Your task to perform on an android device: toggle location history Image 0: 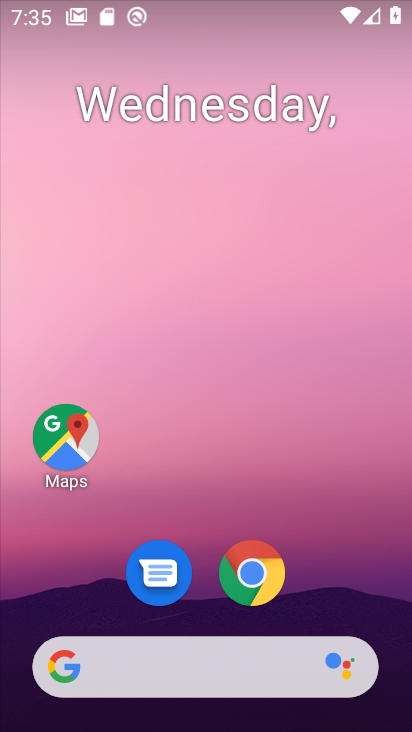
Step 0: click (314, 597)
Your task to perform on an android device: toggle location history Image 1: 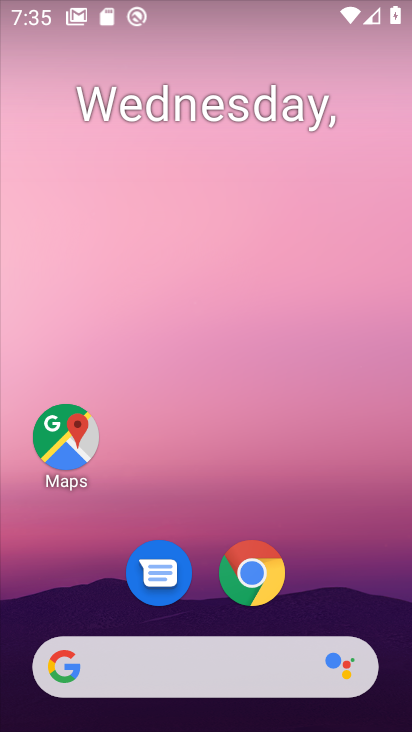
Step 1: click (67, 444)
Your task to perform on an android device: toggle location history Image 2: 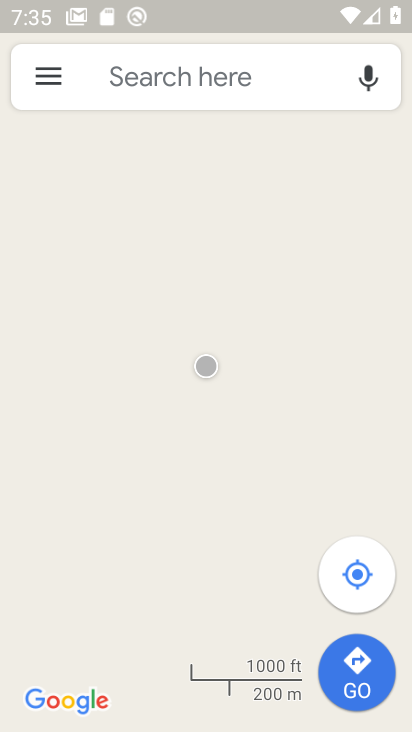
Step 2: click (39, 82)
Your task to perform on an android device: toggle location history Image 3: 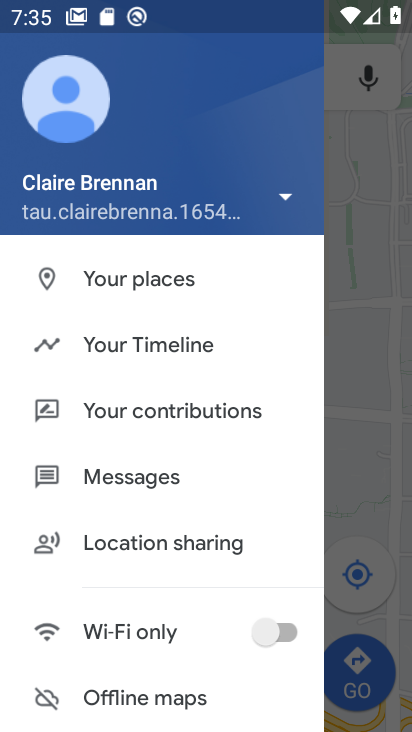
Step 3: click (104, 349)
Your task to perform on an android device: toggle location history Image 4: 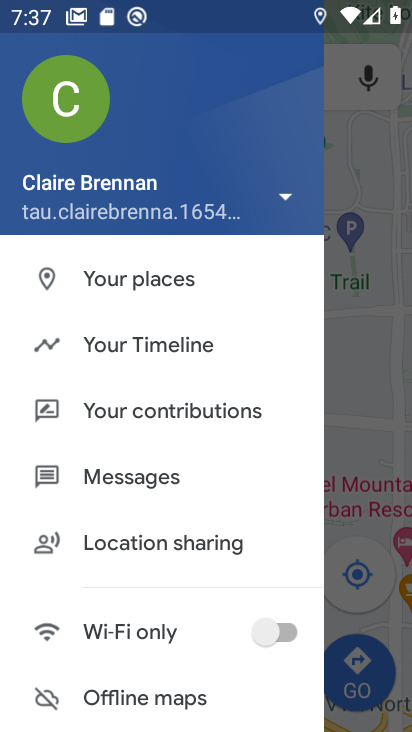
Step 4: click (129, 357)
Your task to perform on an android device: toggle location history Image 5: 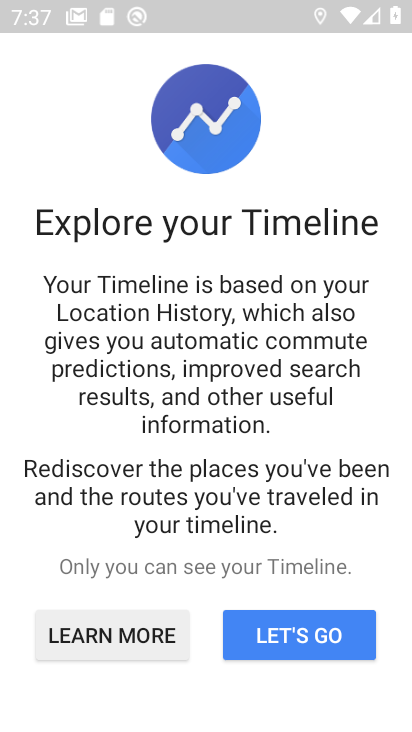
Step 5: click (291, 646)
Your task to perform on an android device: toggle location history Image 6: 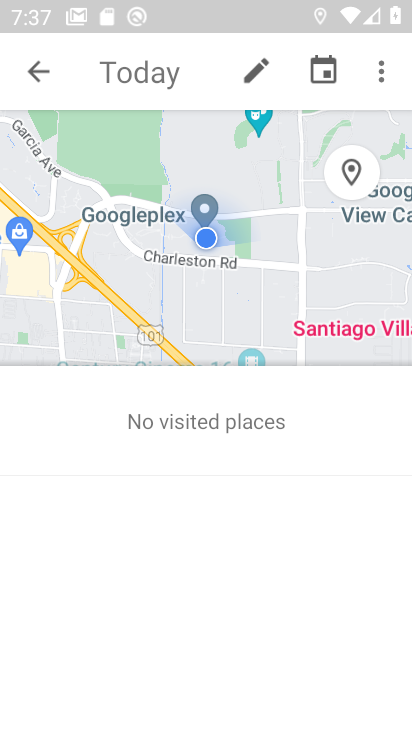
Step 6: click (380, 70)
Your task to perform on an android device: toggle location history Image 7: 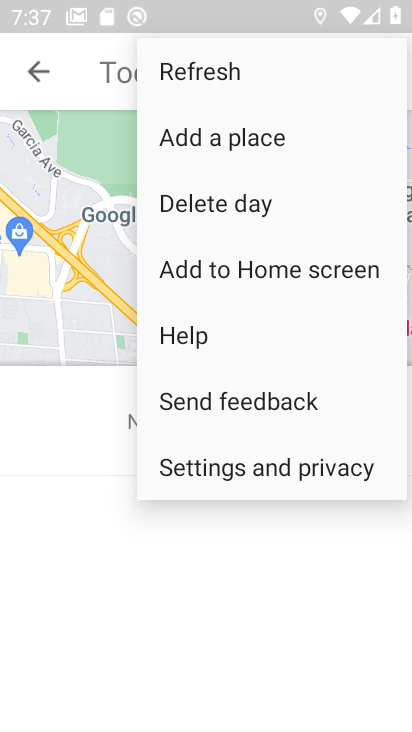
Step 7: click (233, 462)
Your task to perform on an android device: toggle location history Image 8: 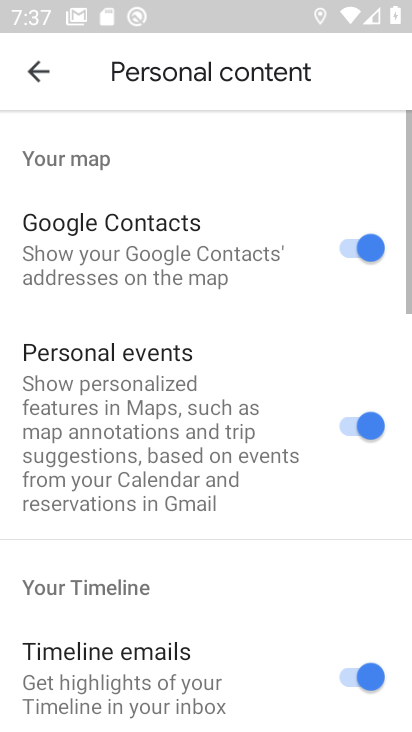
Step 8: drag from (133, 565) to (138, 107)
Your task to perform on an android device: toggle location history Image 9: 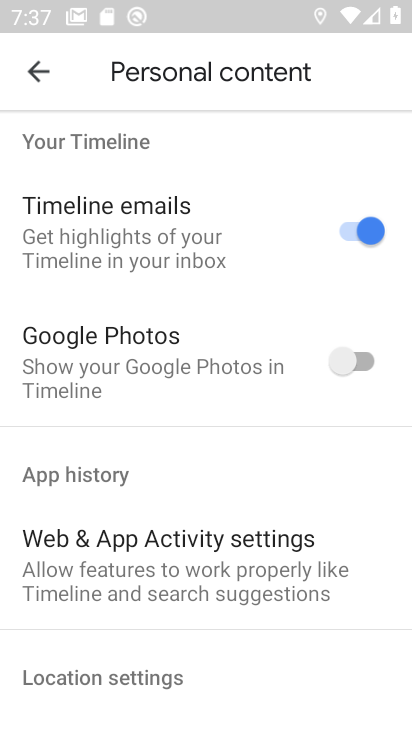
Step 9: drag from (112, 494) to (107, 118)
Your task to perform on an android device: toggle location history Image 10: 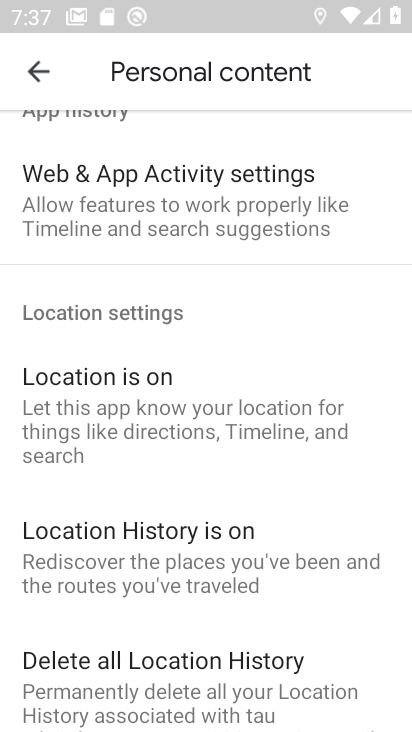
Step 10: click (134, 550)
Your task to perform on an android device: toggle location history Image 11: 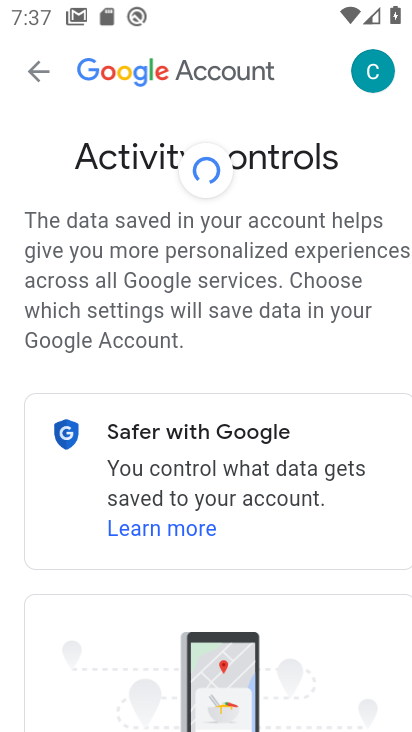
Step 11: drag from (197, 498) to (205, 155)
Your task to perform on an android device: toggle location history Image 12: 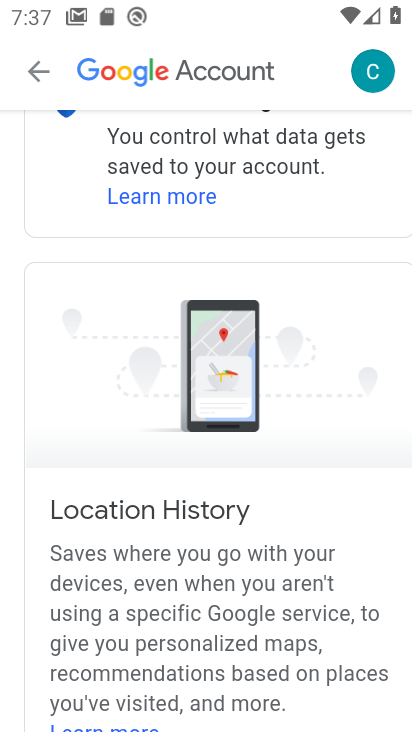
Step 12: drag from (159, 549) to (182, 174)
Your task to perform on an android device: toggle location history Image 13: 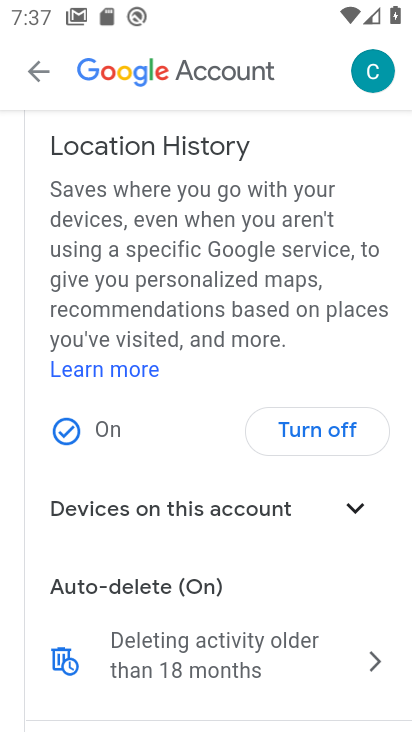
Step 13: click (308, 430)
Your task to perform on an android device: toggle location history Image 14: 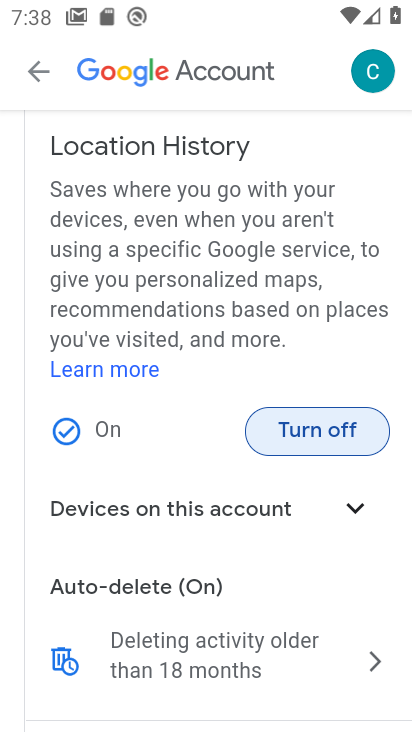
Step 14: click (319, 427)
Your task to perform on an android device: toggle location history Image 15: 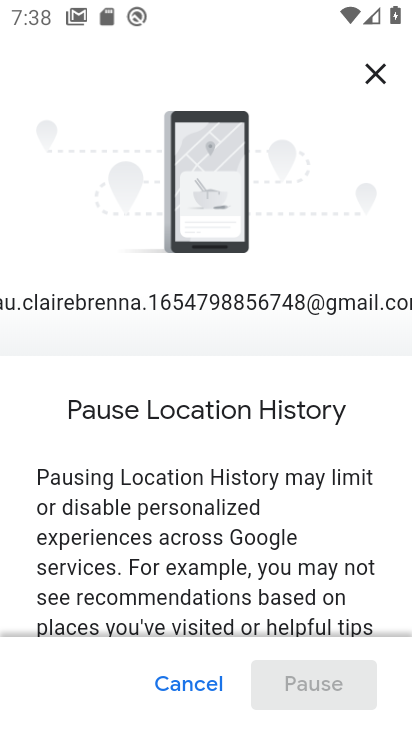
Step 15: drag from (236, 519) to (246, 78)
Your task to perform on an android device: toggle location history Image 16: 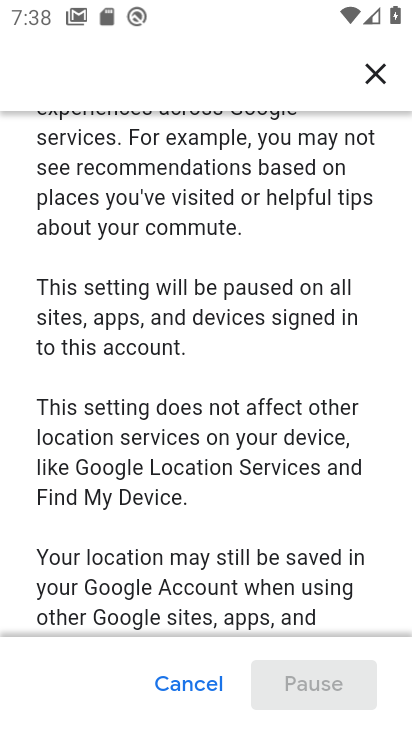
Step 16: drag from (233, 425) to (236, 131)
Your task to perform on an android device: toggle location history Image 17: 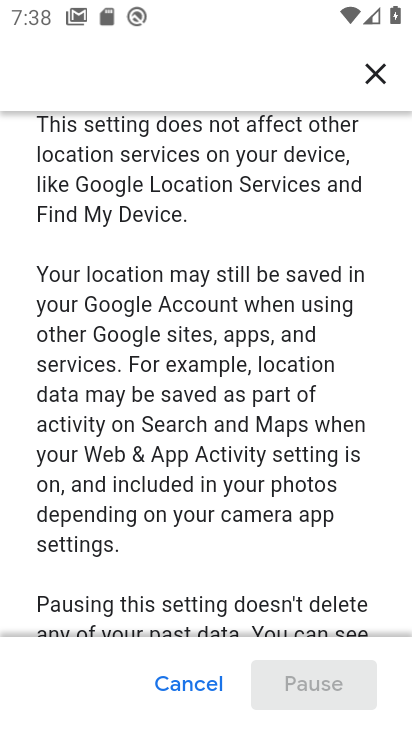
Step 17: drag from (252, 555) to (245, 179)
Your task to perform on an android device: toggle location history Image 18: 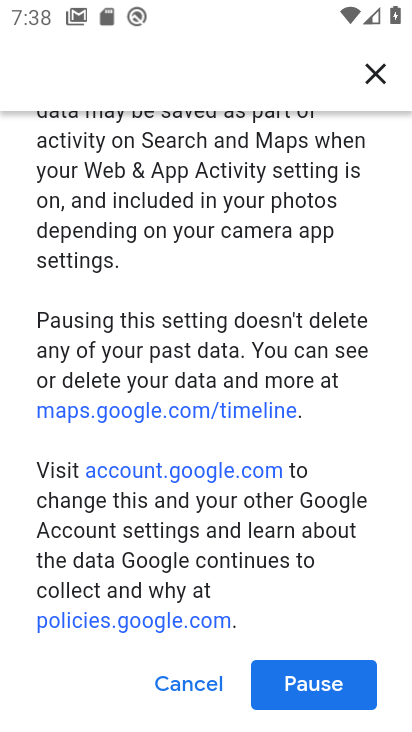
Step 18: click (311, 693)
Your task to perform on an android device: toggle location history Image 19: 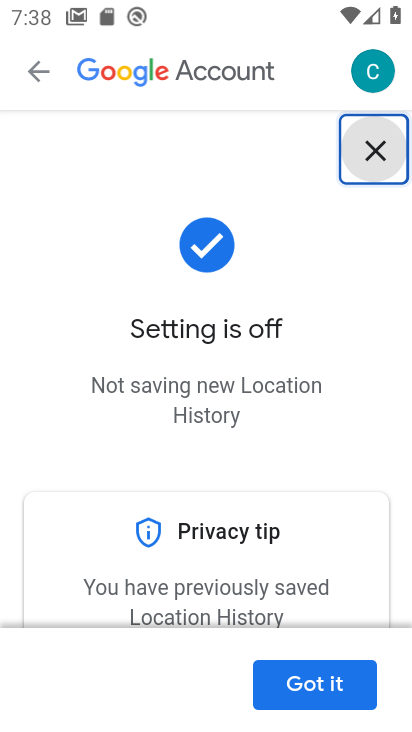
Step 19: click (311, 693)
Your task to perform on an android device: toggle location history Image 20: 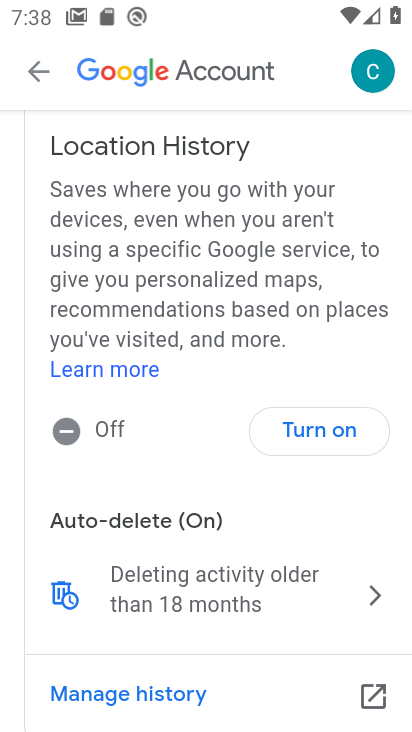
Step 20: task complete